Your task to perform on an android device: turn off sleep mode Image 0: 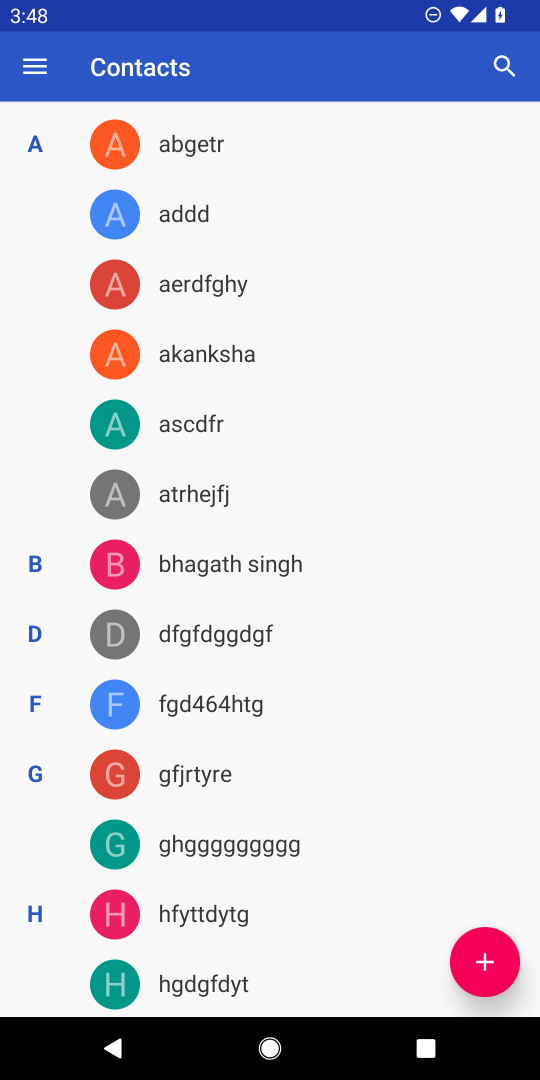
Step 0: press home button
Your task to perform on an android device: turn off sleep mode Image 1: 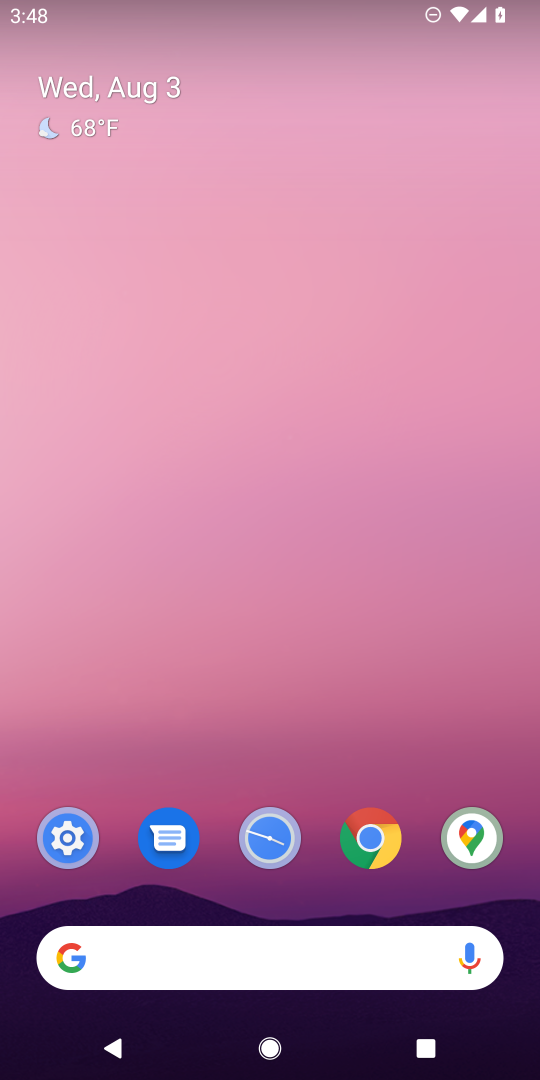
Step 1: click (56, 834)
Your task to perform on an android device: turn off sleep mode Image 2: 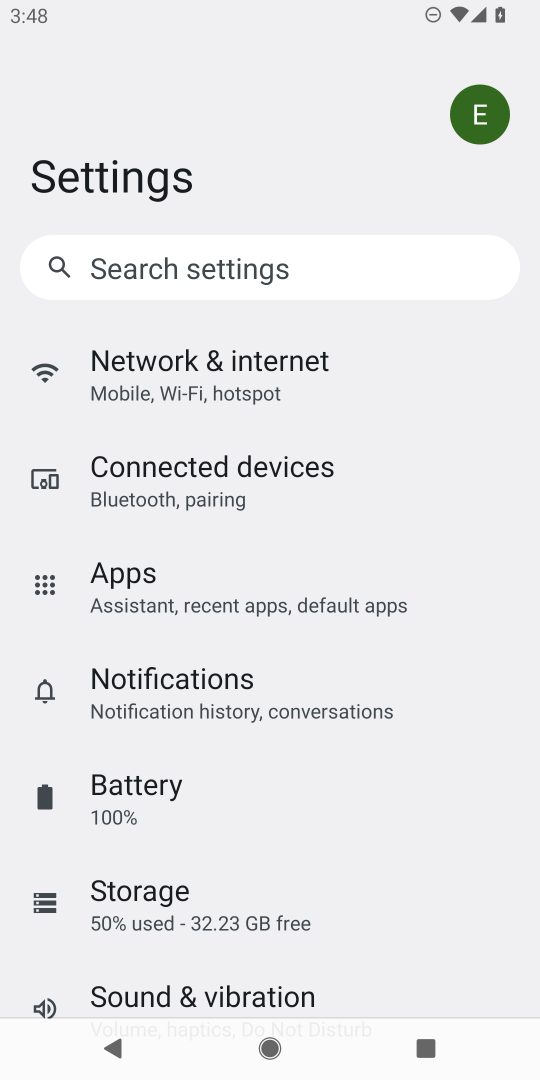
Step 2: drag from (405, 895) to (412, 580)
Your task to perform on an android device: turn off sleep mode Image 3: 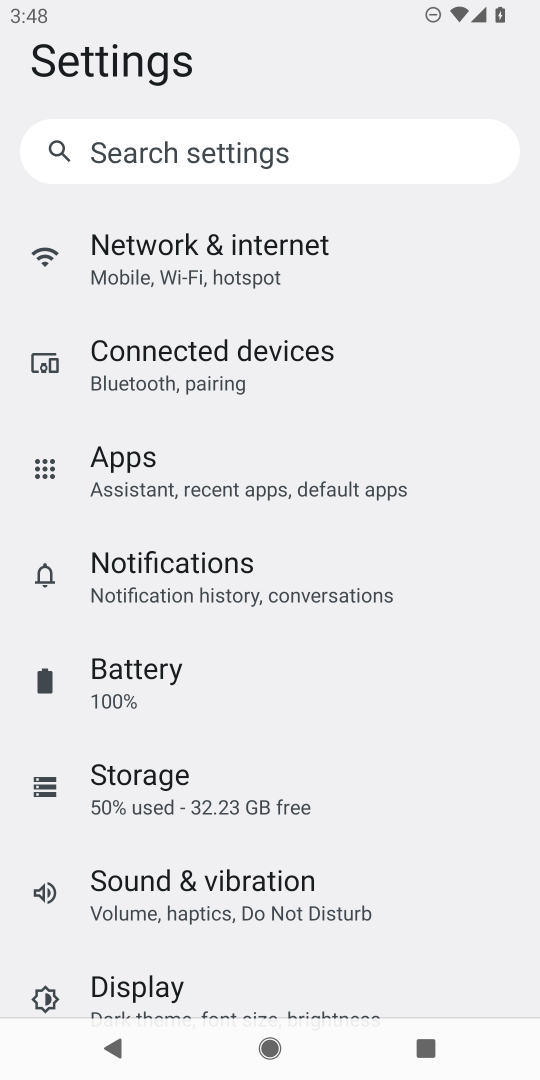
Step 3: drag from (398, 932) to (442, 489)
Your task to perform on an android device: turn off sleep mode Image 4: 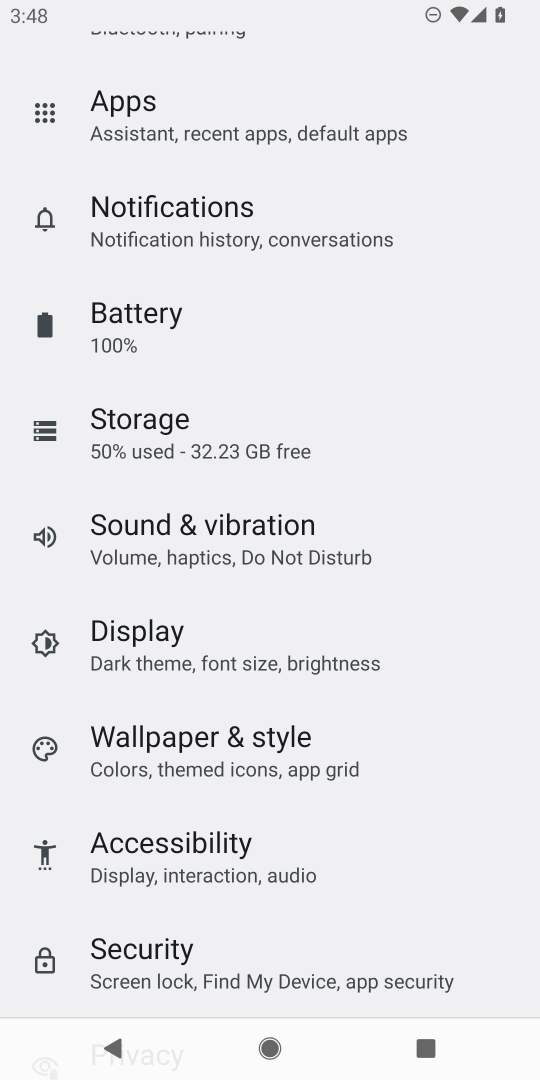
Step 4: drag from (360, 771) to (365, 344)
Your task to perform on an android device: turn off sleep mode Image 5: 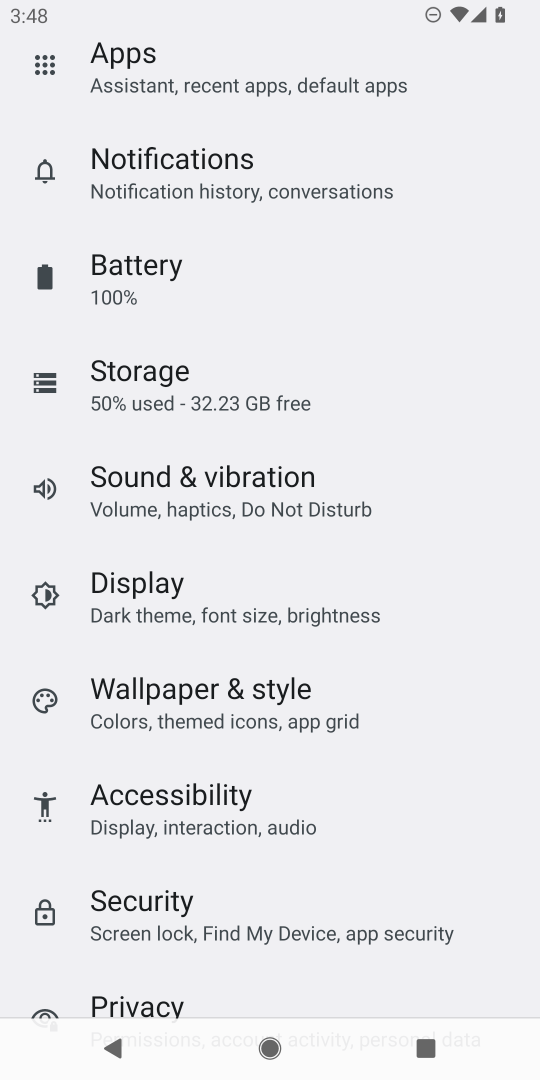
Step 5: drag from (304, 868) to (321, 364)
Your task to perform on an android device: turn off sleep mode Image 6: 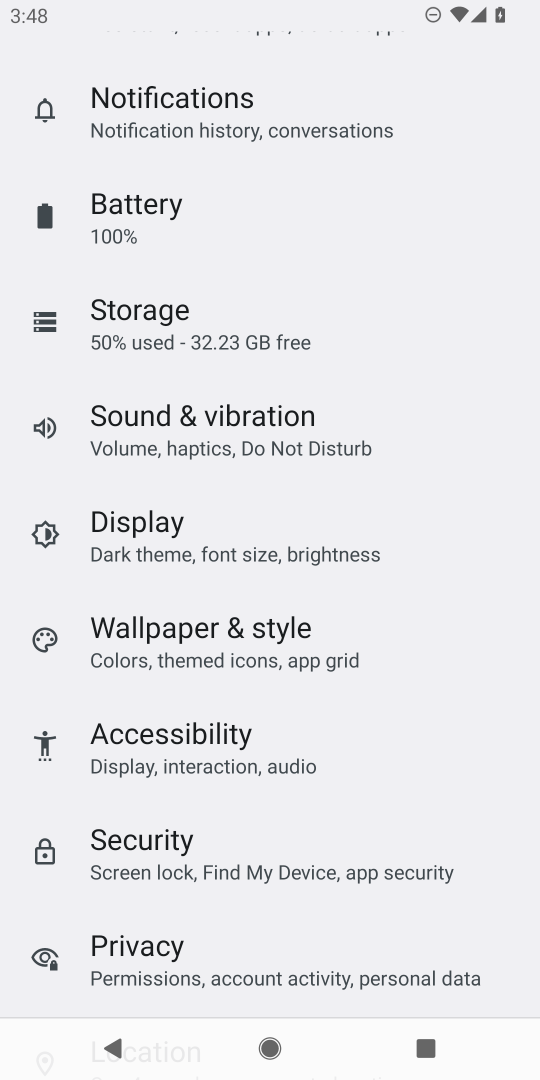
Step 6: click (282, 530)
Your task to perform on an android device: turn off sleep mode Image 7: 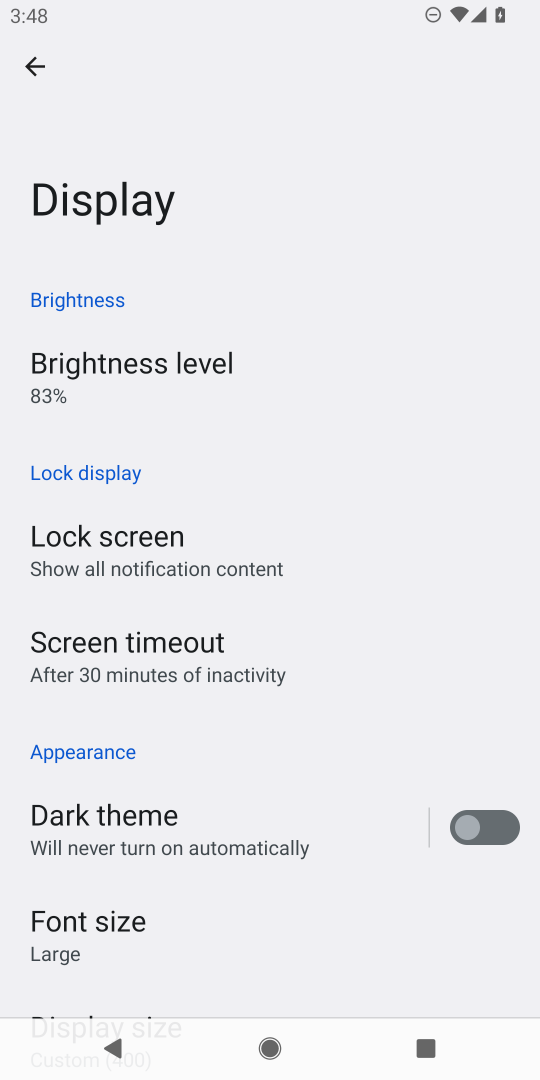
Step 7: task complete